Your task to perform on an android device: Search for Mexican restaurants on Maps Image 0: 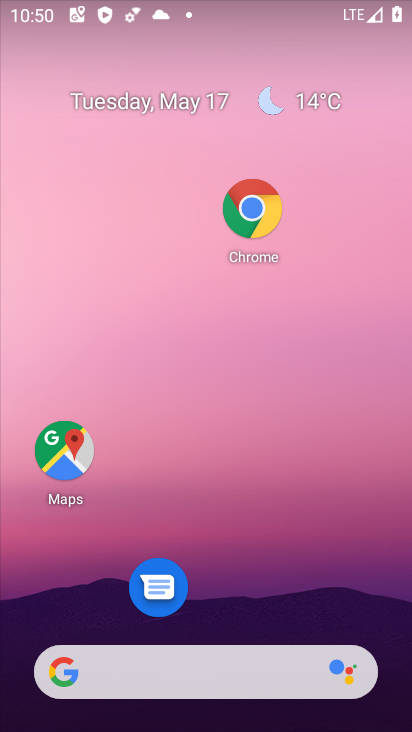
Step 0: click (79, 456)
Your task to perform on an android device: Search for Mexican restaurants on Maps Image 1: 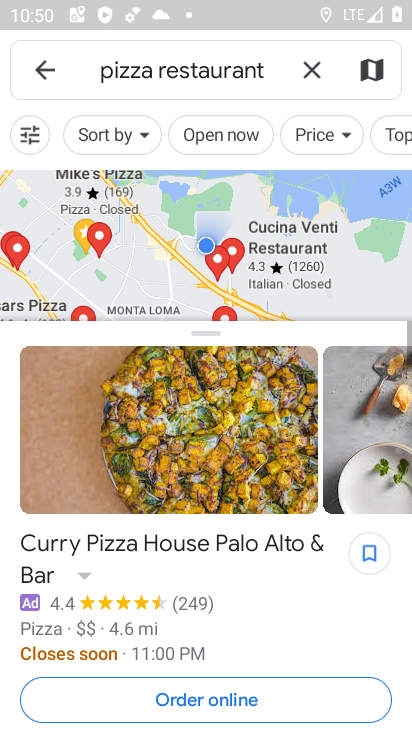
Step 1: click (314, 66)
Your task to perform on an android device: Search for Mexican restaurants on Maps Image 2: 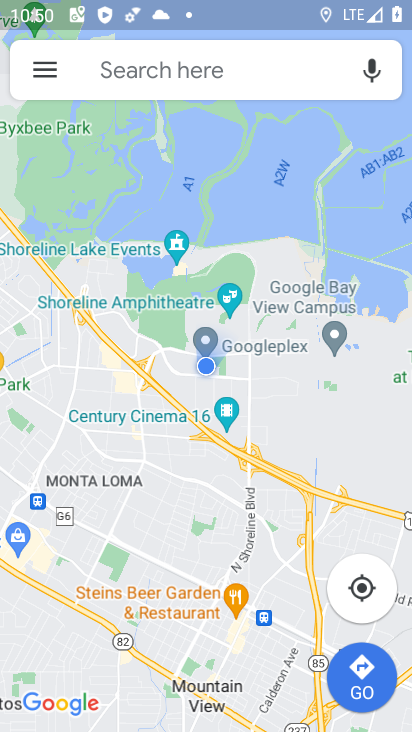
Step 2: click (222, 79)
Your task to perform on an android device: Search for Mexican restaurants on Maps Image 3: 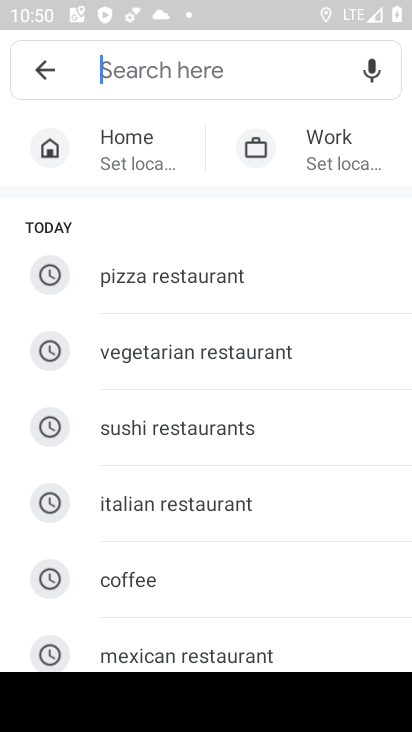
Step 3: click (244, 652)
Your task to perform on an android device: Search for Mexican restaurants on Maps Image 4: 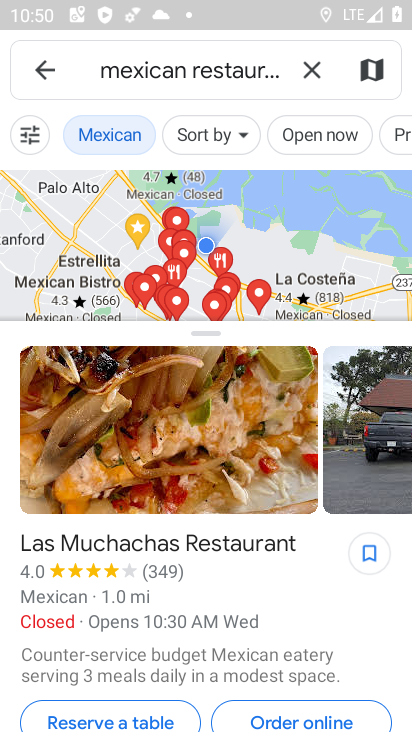
Step 4: task complete